Your task to perform on an android device: Go to privacy settings Image 0: 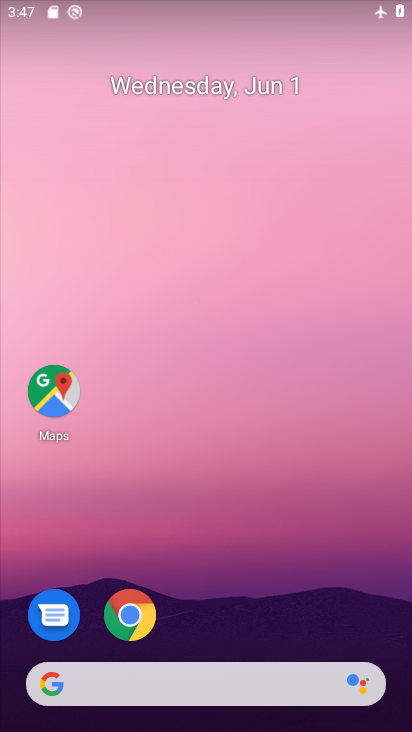
Step 0: drag from (286, 519) to (283, 86)
Your task to perform on an android device: Go to privacy settings Image 1: 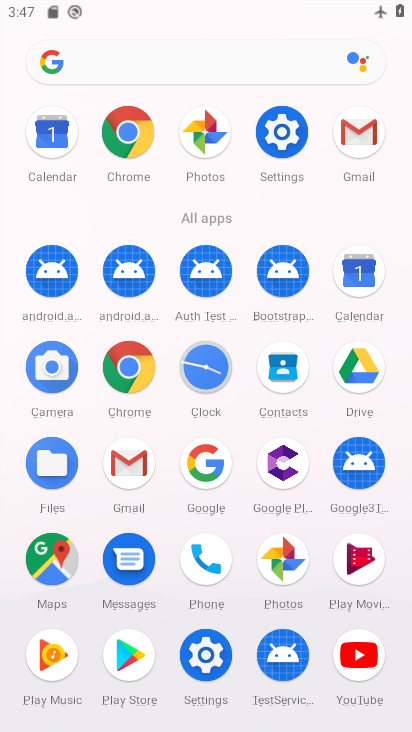
Step 1: click (279, 123)
Your task to perform on an android device: Go to privacy settings Image 2: 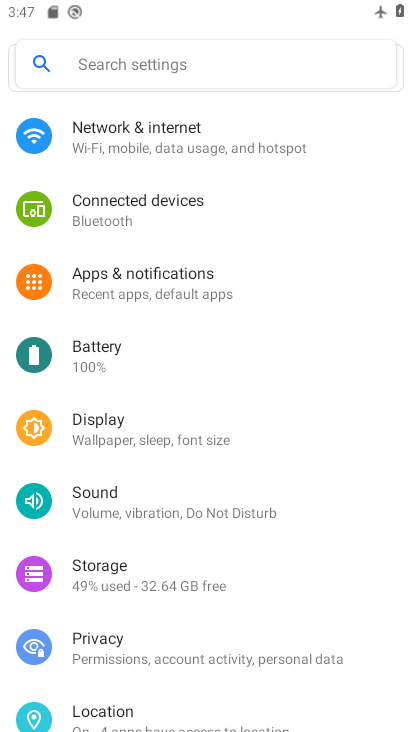
Step 2: drag from (166, 505) to (216, 148)
Your task to perform on an android device: Go to privacy settings Image 3: 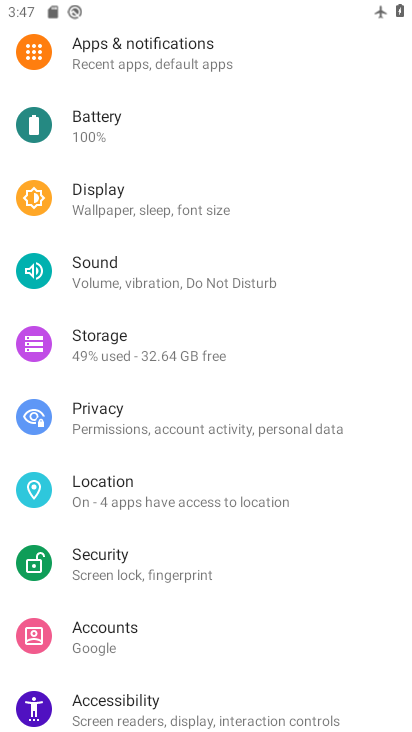
Step 3: click (110, 421)
Your task to perform on an android device: Go to privacy settings Image 4: 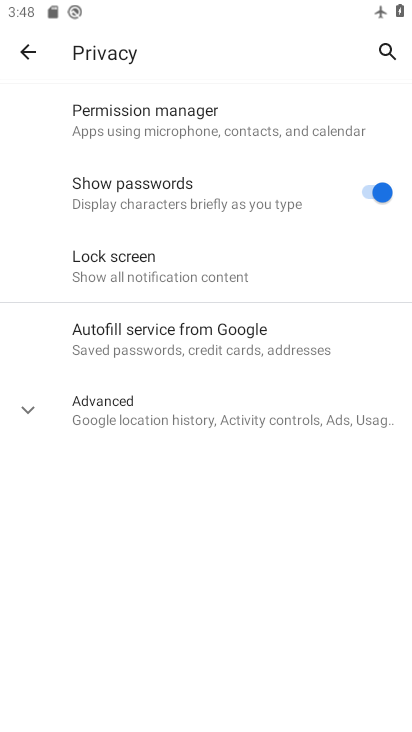
Step 4: click (110, 414)
Your task to perform on an android device: Go to privacy settings Image 5: 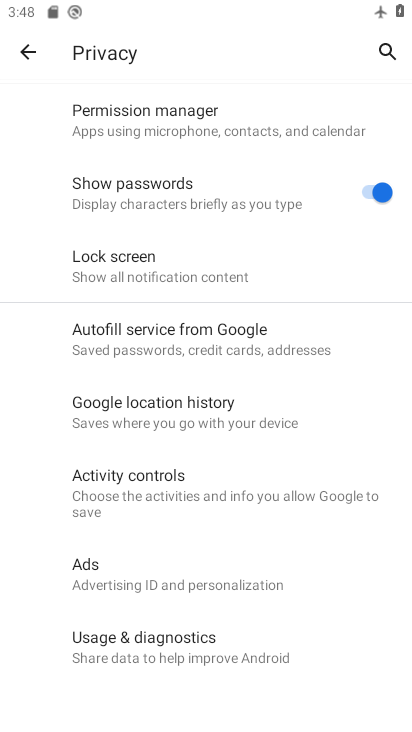
Step 5: task complete